Your task to perform on an android device: clear history in the chrome app Image 0: 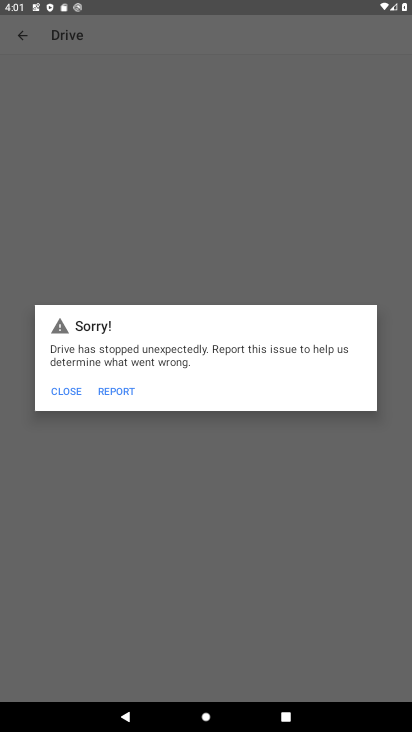
Step 0: press home button
Your task to perform on an android device: clear history in the chrome app Image 1: 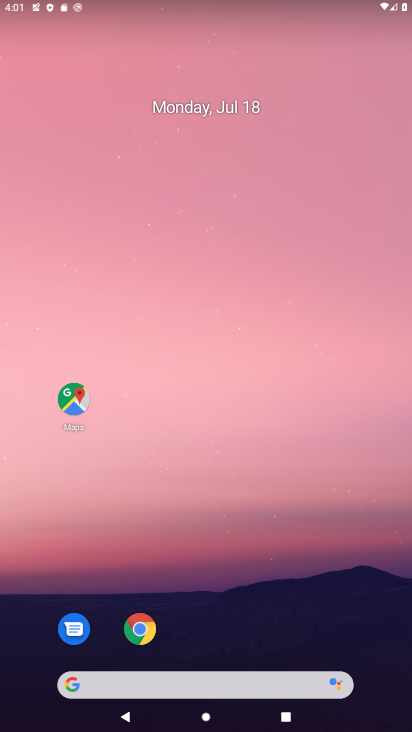
Step 1: click (134, 626)
Your task to perform on an android device: clear history in the chrome app Image 2: 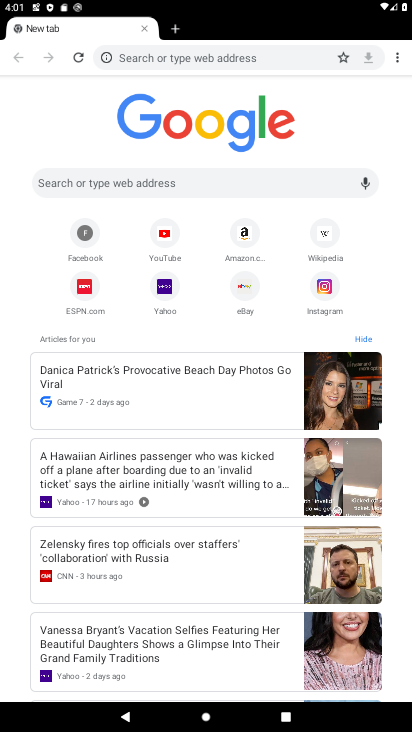
Step 2: click (396, 54)
Your task to perform on an android device: clear history in the chrome app Image 3: 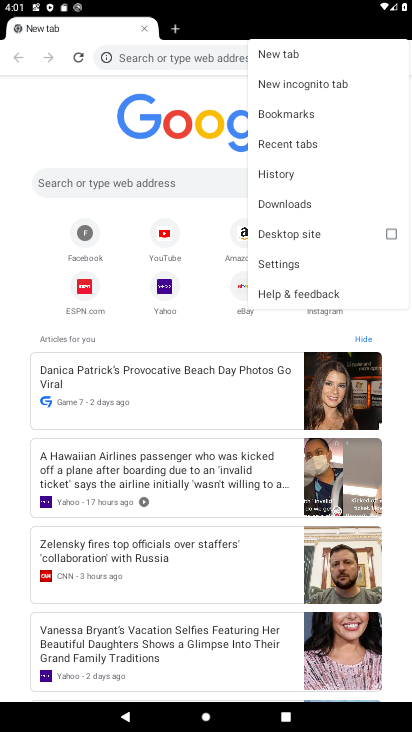
Step 3: click (301, 174)
Your task to perform on an android device: clear history in the chrome app Image 4: 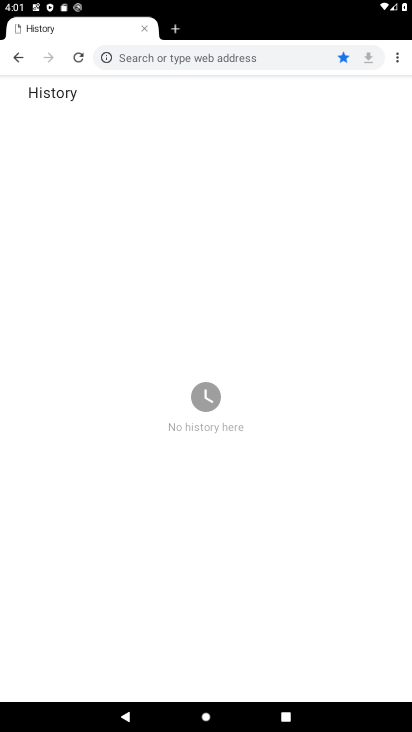
Step 4: task complete